Your task to perform on an android device: Open calendar and show me the third week of next month Image 0: 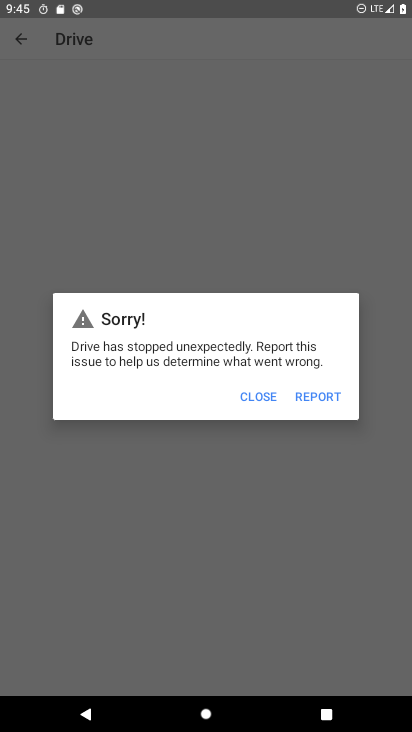
Step 0: press home button
Your task to perform on an android device: Open calendar and show me the third week of next month Image 1: 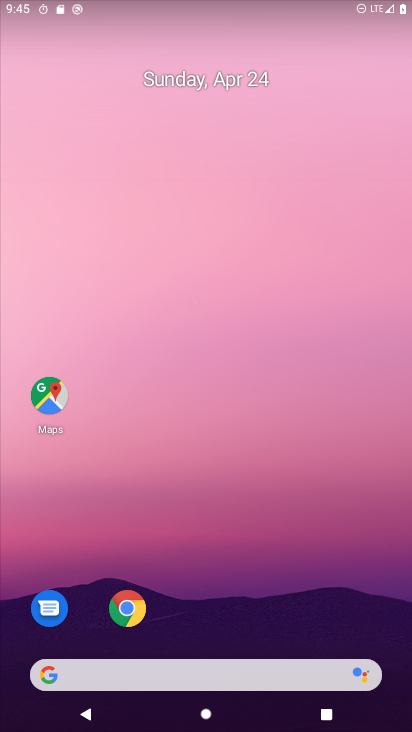
Step 1: drag from (256, 526) to (244, 85)
Your task to perform on an android device: Open calendar and show me the third week of next month Image 2: 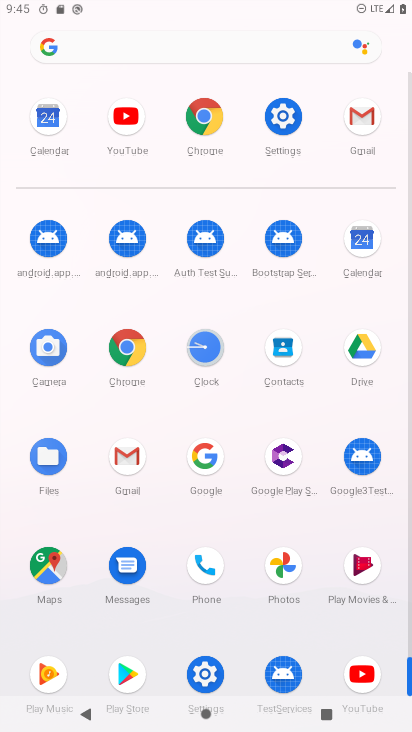
Step 2: click (46, 114)
Your task to perform on an android device: Open calendar and show me the third week of next month Image 3: 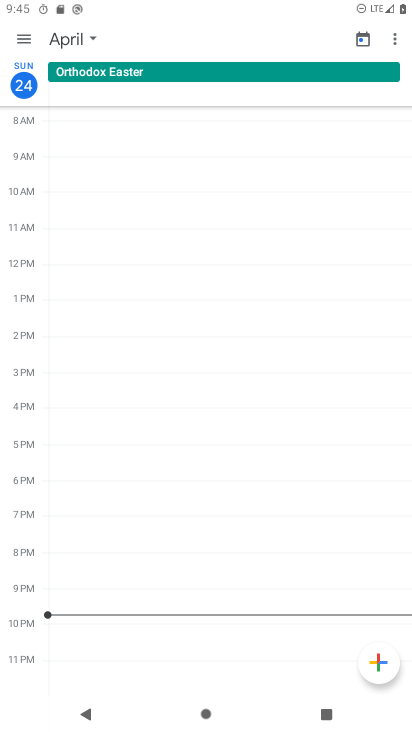
Step 3: click (25, 37)
Your task to perform on an android device: Open calendar and show me the third week of next month Image 4: 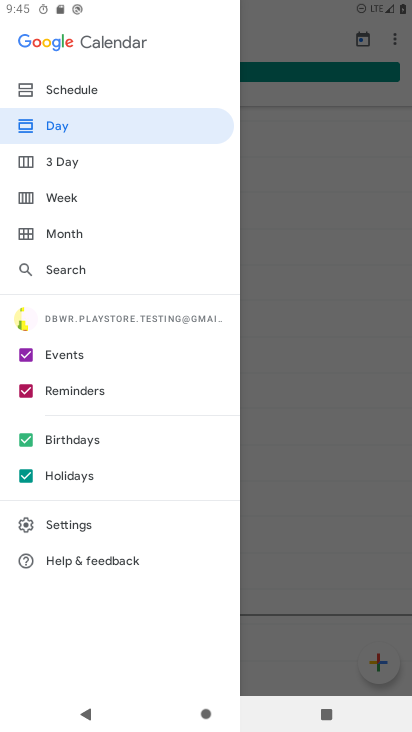
Step 4: click (55, 201)
Your task to perform on an android device: Open calendar and show me the third week of next month Image 5: 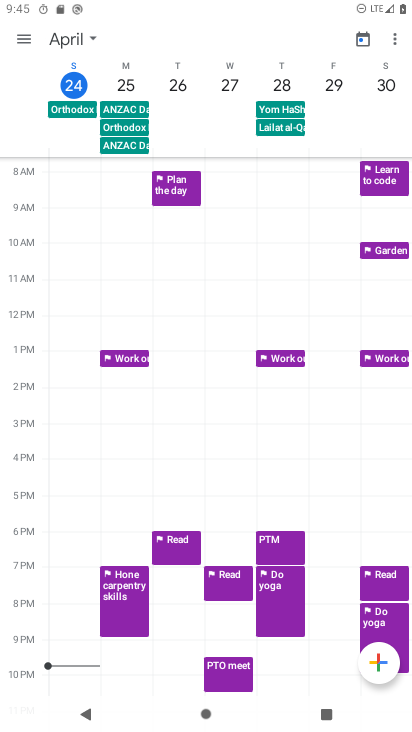
Step 5: task complete